Your task to perform on an android device: change text size in settings app Image 0: 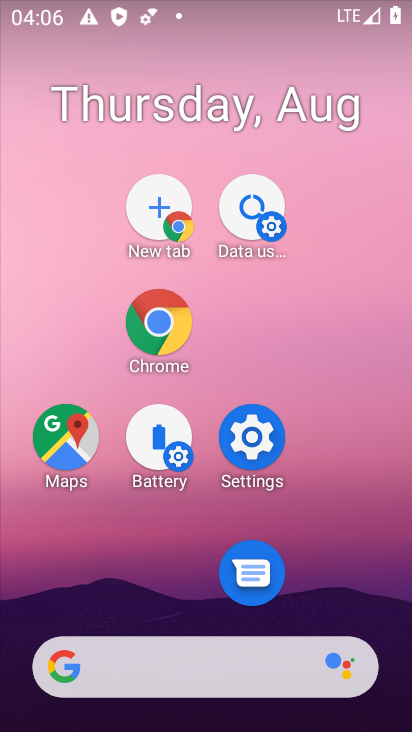
Step 0: drag from (252, 418) to (224, 160)
Your task to perform on an android device: change text size in settings app Image 1: 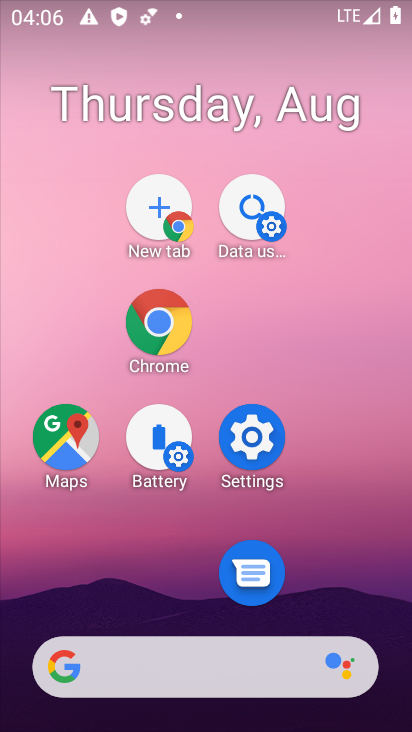
Step 1: click (239, 439)
Your task to perform on an android device: change text size in settings app Image 2: 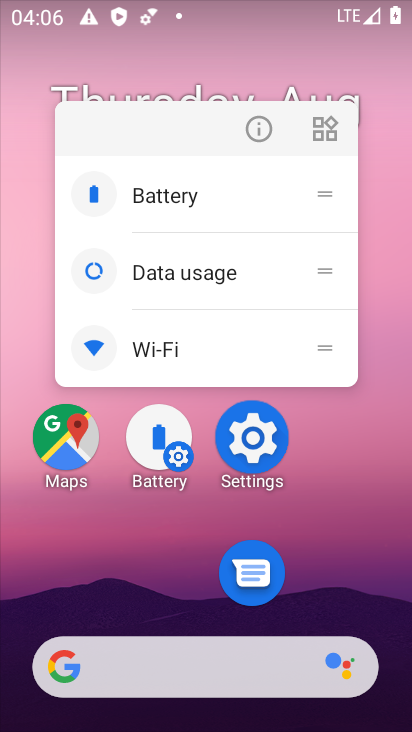
Step 2: click (178, 193)
Your task to perform on an android device: change text size in settings app Image 3: 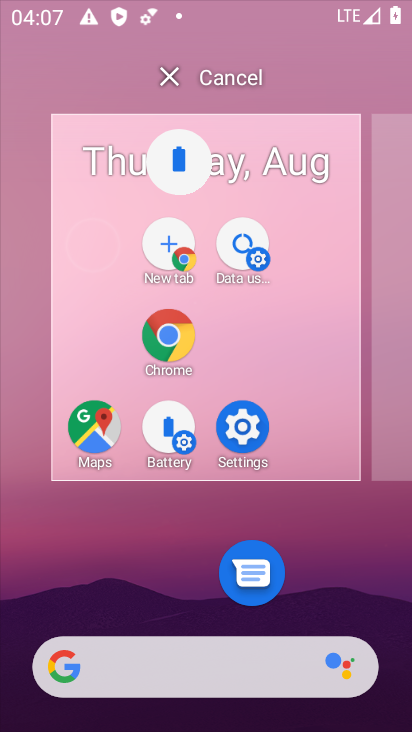
Step 3: click (179, 197)
Your task to perform on an android device: change text size in settings app Image 4: 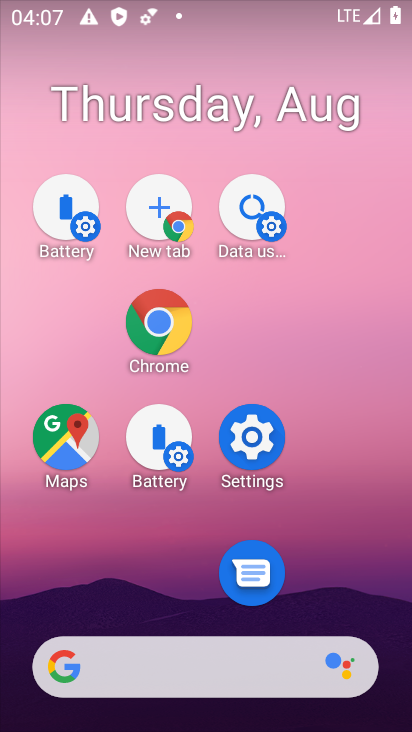
Step 4: click (244, 433)
Your task to perform on an android device: change text size in settings app Image 5: 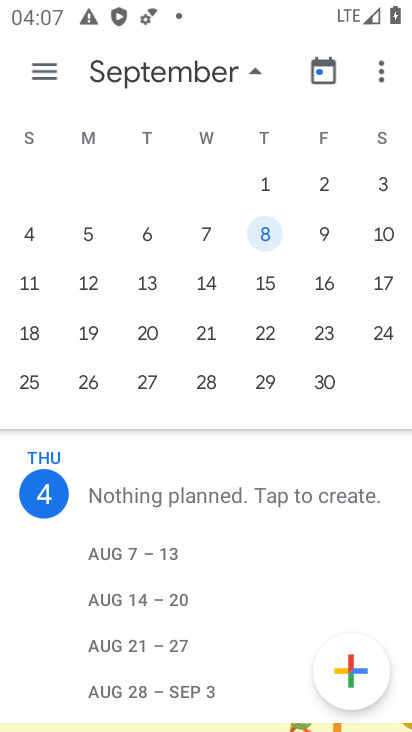
Step 5: click (245, 433)
Your task to perform on an android device: change text size in settings app Image 6: 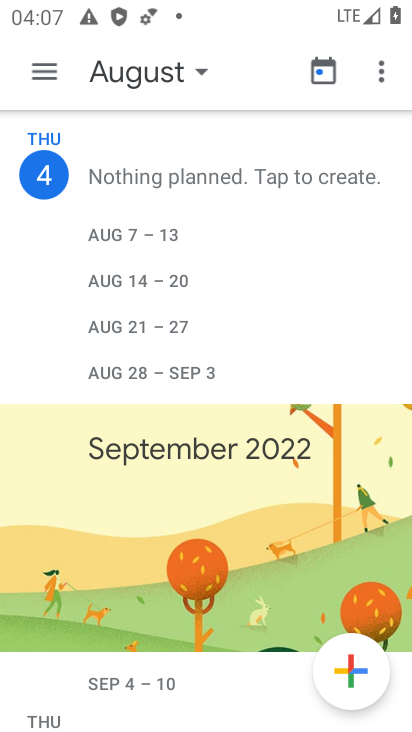
Step 6: press back button
Your task to perform on an android device: change text size in settings app Image 7: 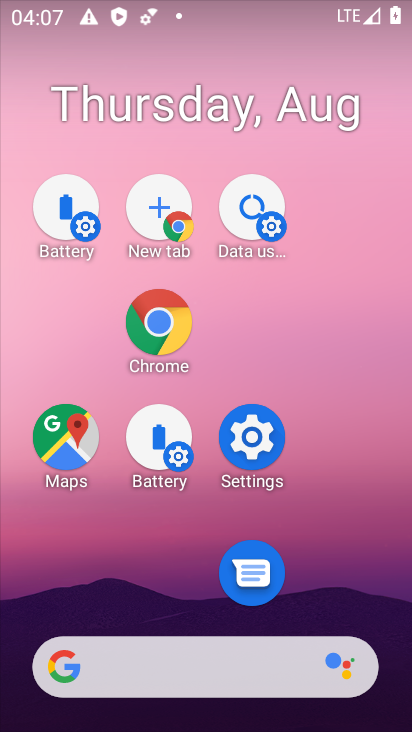
Step 7: drag from (192, 611) to (111, 230)
Your task to perform on an android device: change text size in settings app Image 8: 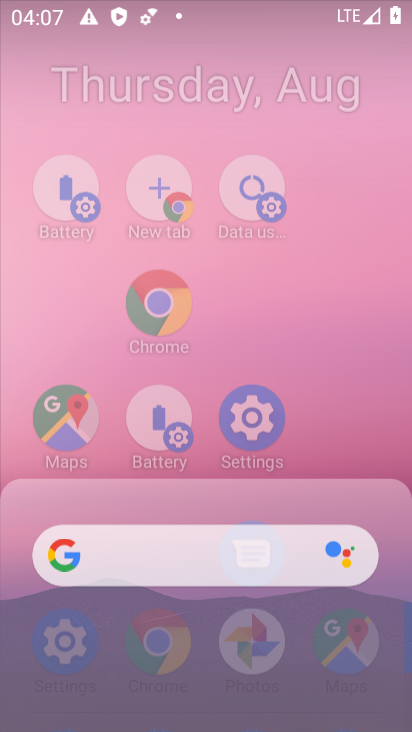
Step 8: drag from (174, 515) to (148, 230)
Your task to perform on an android device: change text size in settings app Image 9: 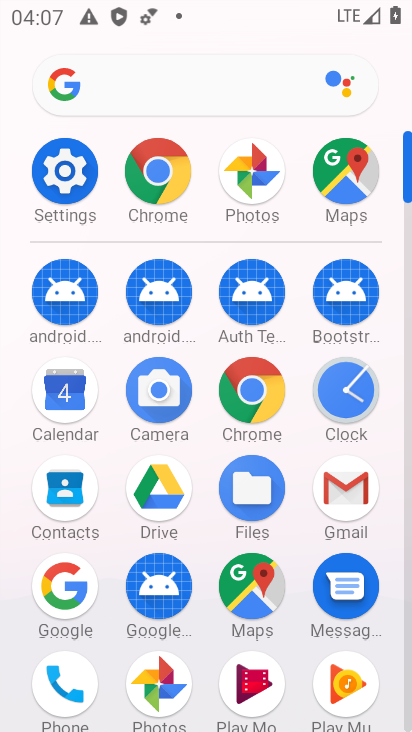
Step 9: click (63, 174)
Your task to perform on an android device: change text size in settings app Image 10: 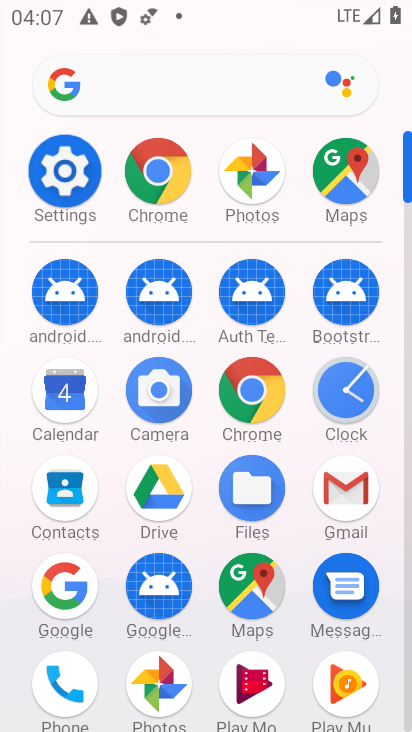
Step 10: click (73, 176)
Your task to perform on an android device: change text size in settings app Image 11: 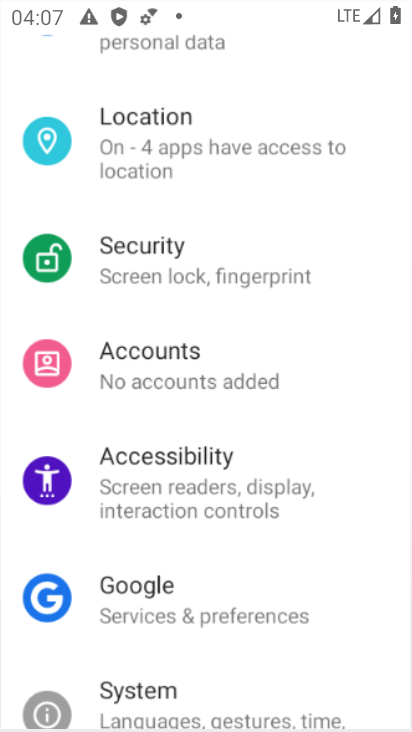
Step 11: click (73, 176)
Your task to perform on an android device: change text size in settings app Image 12: 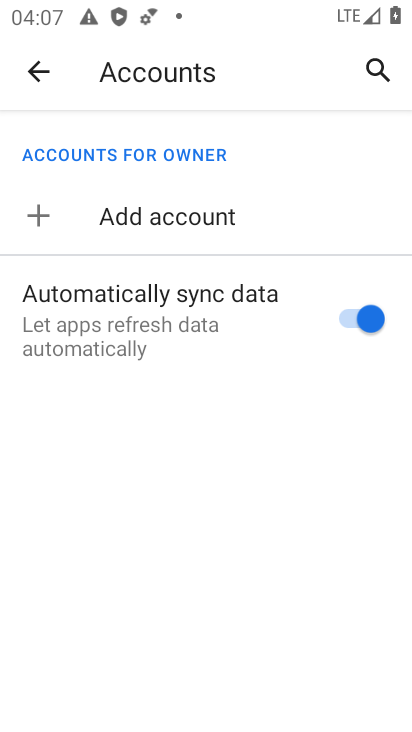
Step 12: click (39, 59)
Your task to perform on an android device: change text size in settings app Image 13: 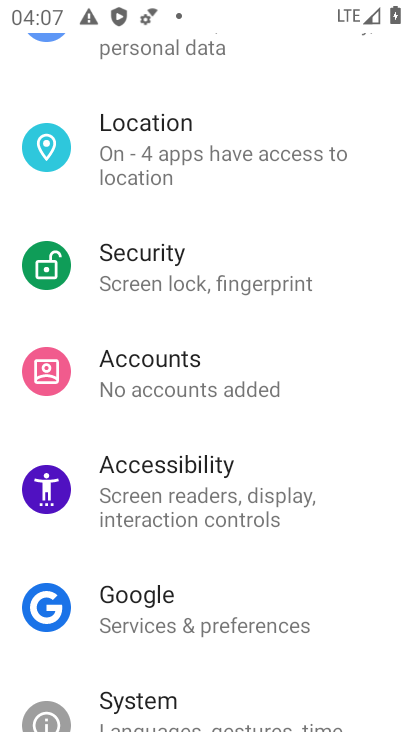
Step 13: drag from (155, 155) to (199, 498)
Your task to perform on an android device: change text size in settings app Image 14: 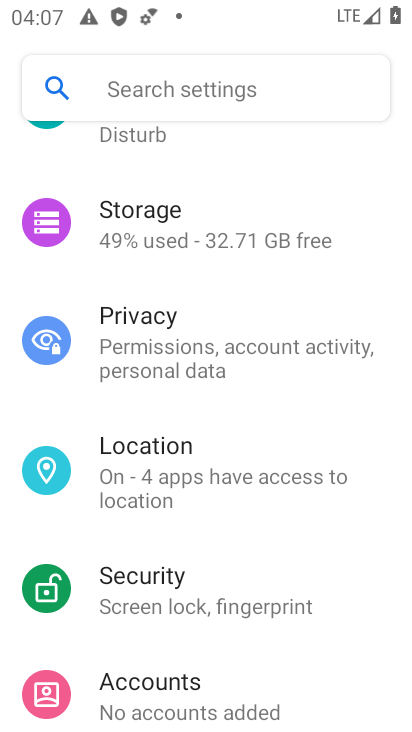
Step 14: drag from (162, 272) to (202, 536)
Your task to perform on an android device: change text size in settings app Image 15: 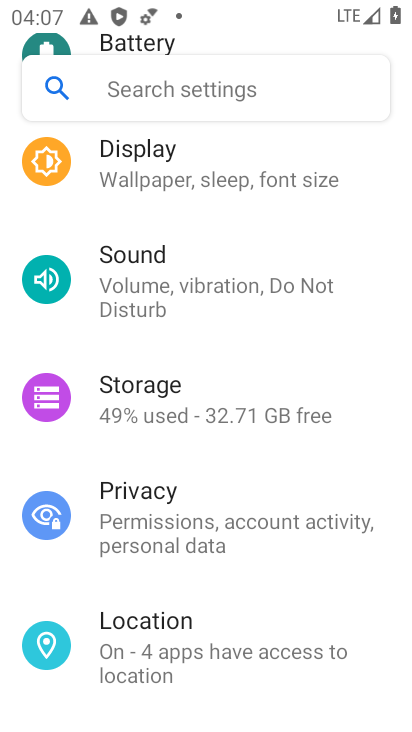
Step 15: click (157, 179)
Your task to perform on an android device: change text size in settings app Image 16: 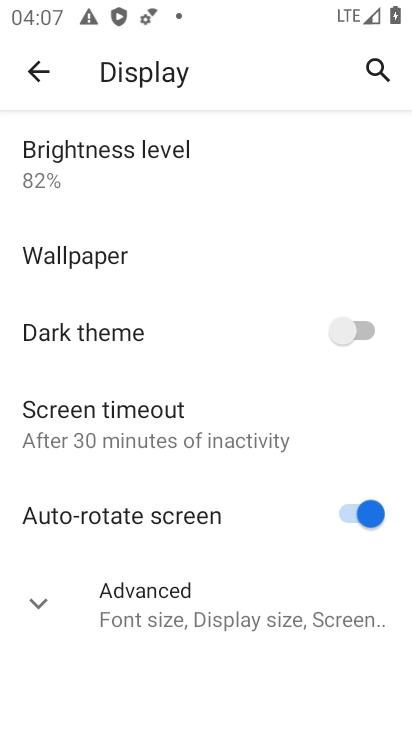
Step 16: click (145, 615)
Your task to perform on an android device: change text size in settings app Image 17: 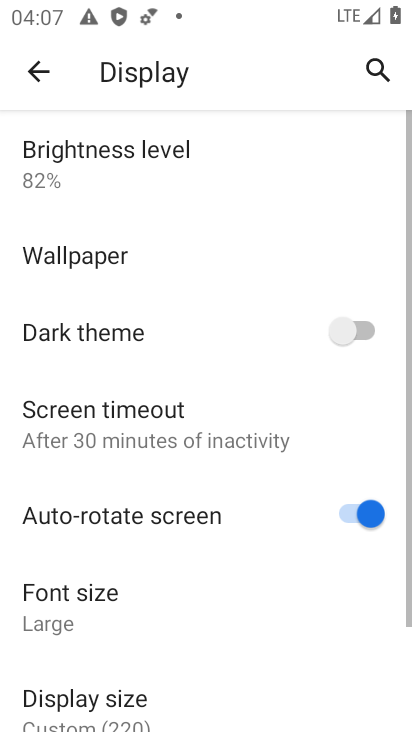
Step 17: drag from (147, 595) to (143, 381)
Your task to perform on an android device: change text size in settings app Image 18: 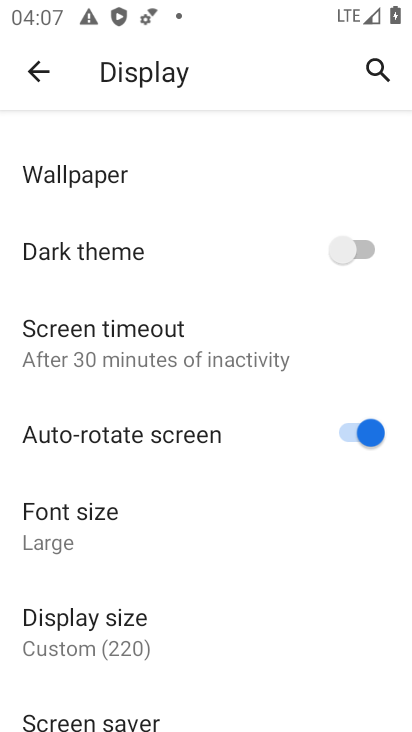
Step 18: click (63, 520)
Your task to perform on an android device: change text size in settings app Image 19: 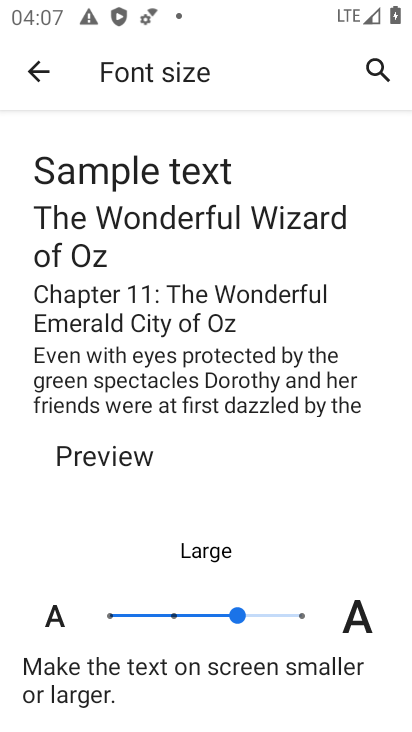
Step 19: click (293, 604)
Your task to perform on an android device: change text size in settings app Image 20: 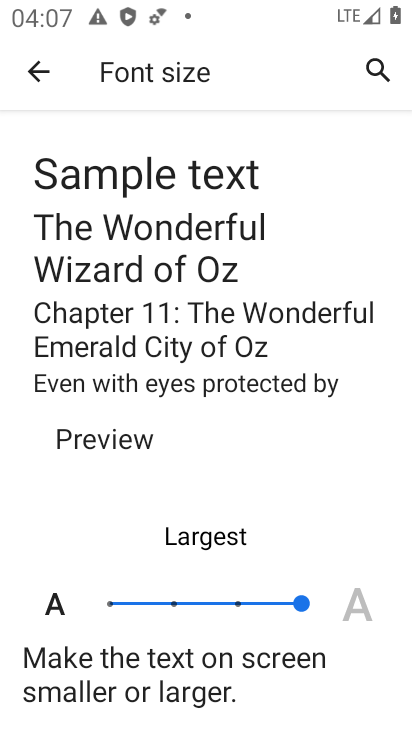
Step 20: task complete